Your task to perform on an android device: Search for Mexican restaurants on Maps Image 0: 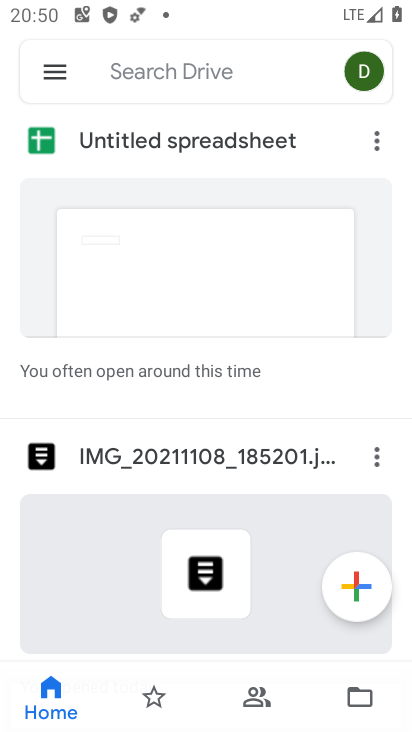
Step 0: press home button
Your task to perform on an android device: Search for Mexican restaurants on Maps Image 1: 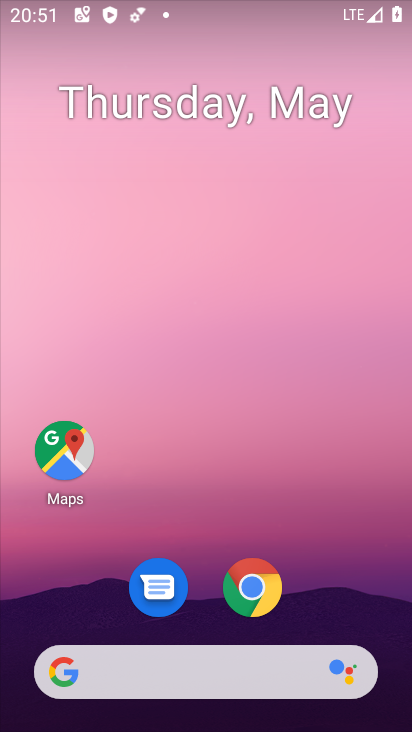
Step 1: click (74, 456)
Your task to perform on an android device: Search for Mexican restaurants on Maps Image 2: 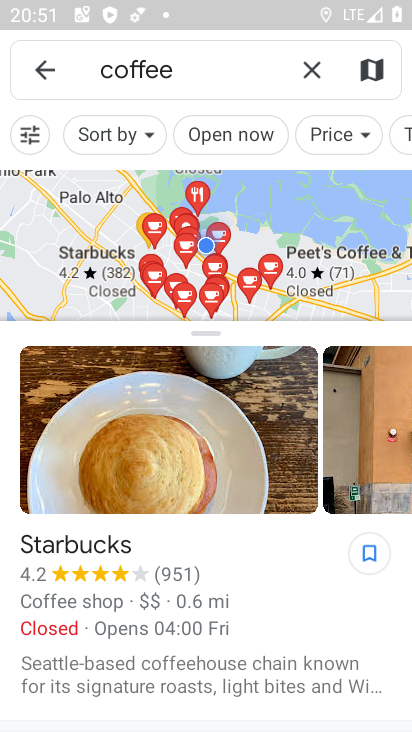
Step 2: click (306, 71)
Your task to perform on an android device: Search for Mexican restaurants on Maps Image 3: 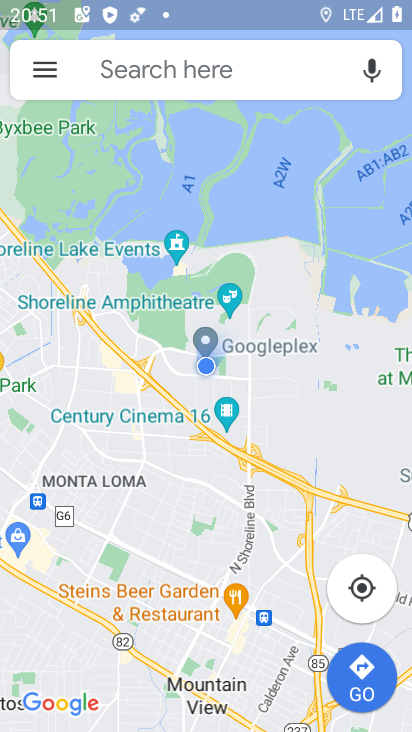
Step 3: type "mexican restaurants"
Your task to perform on an android device: Search for Mexican restaurants on Maps Image 4: 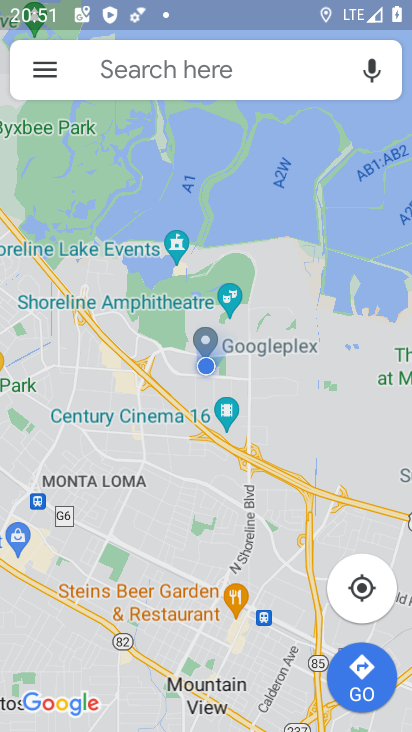
Step 4: click (211, 83)
Your task to perform on an android device: Search for Mexican restaurants on Maps Image 5: 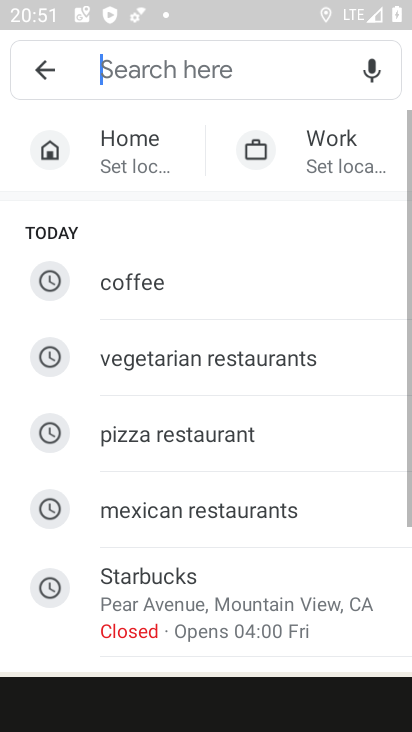
Step 5: click (163, 76)
Your task to perform on an android device: Search for Mexican restaurants on Maps Image 6: 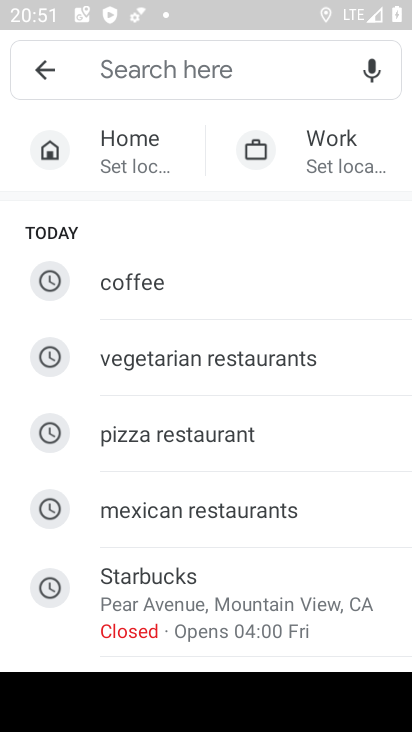
Step 6: type "mexican restaurants"
Your task to perform on an android device: Search for Mexican restaurants on Maps Image 7: 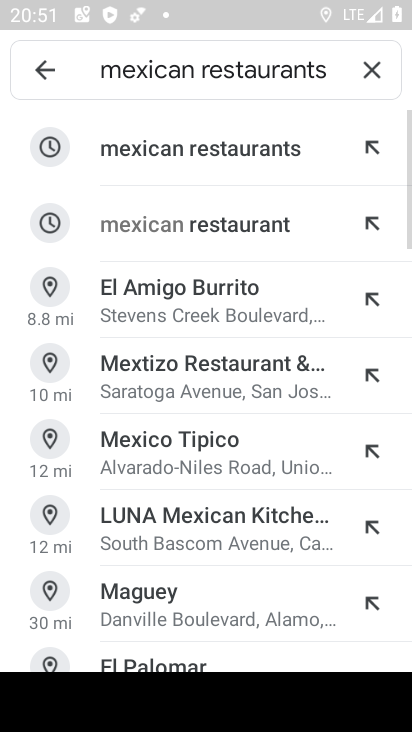
Step 7: click (132, 157)
Your task to perform on an android device: Search for Mexican restaurants on Maps Image 8: 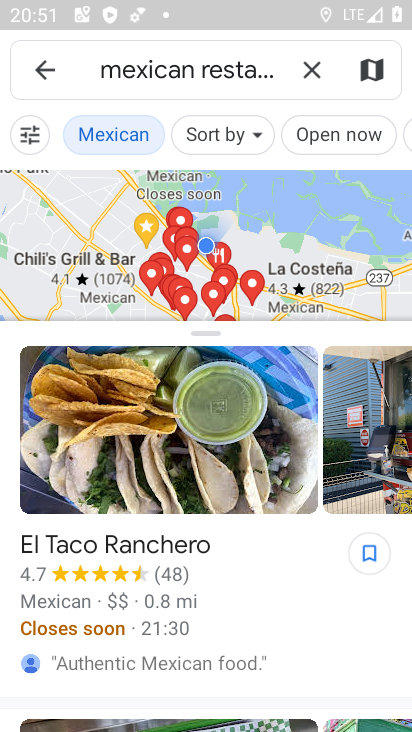
Step 8: task complete